Your task to perform on an android device: Go to battery settings Image 0: 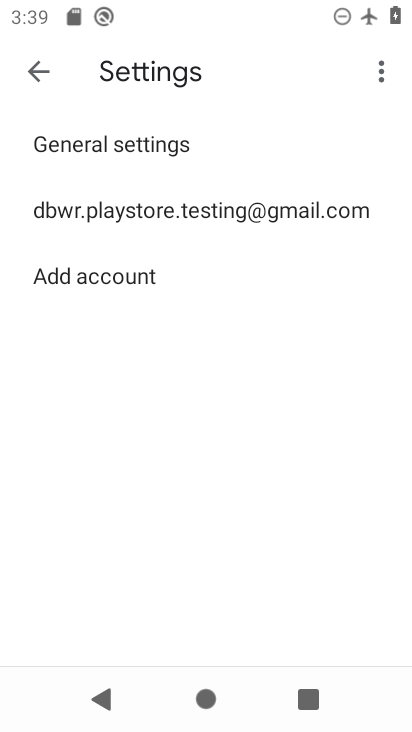
Step 0: press back button
Your task to perform on an android device: Go to battery settings Image 1: 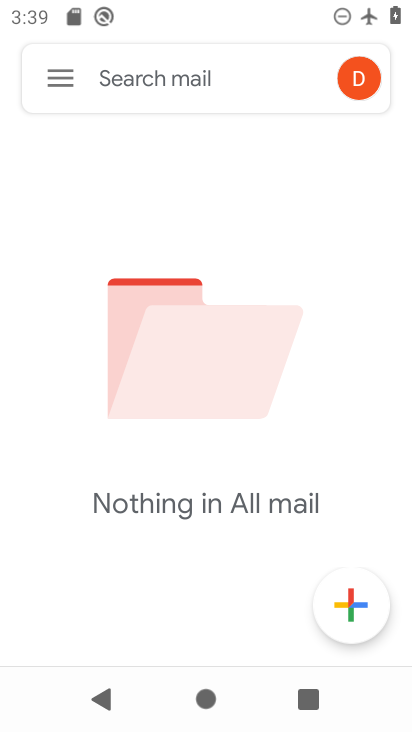
Step 1: drag from (225, 616) to (236, 493)
Your task to perform on an android device: Go to battery settings Image 2: 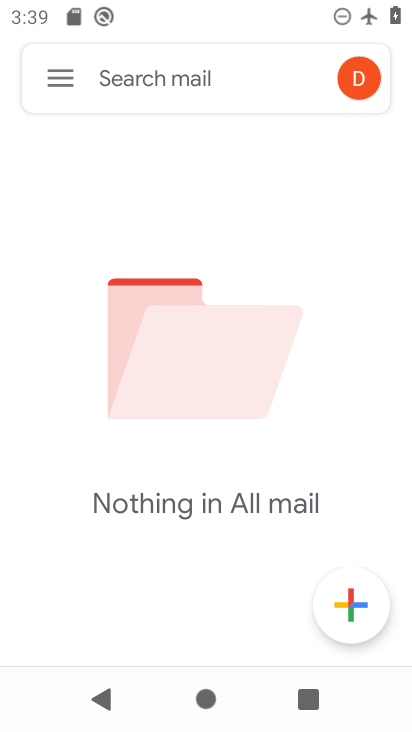
Step 2: press home button
Your task to perform on an android device: Go to battery settings Image 3: 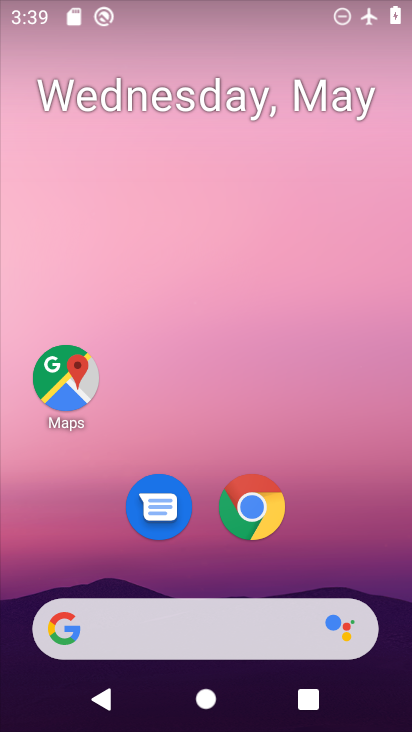
Step 3: drag from (197, 622) to (321, 48)
Your task to perform on an android device: Go to battery settings Image 4: 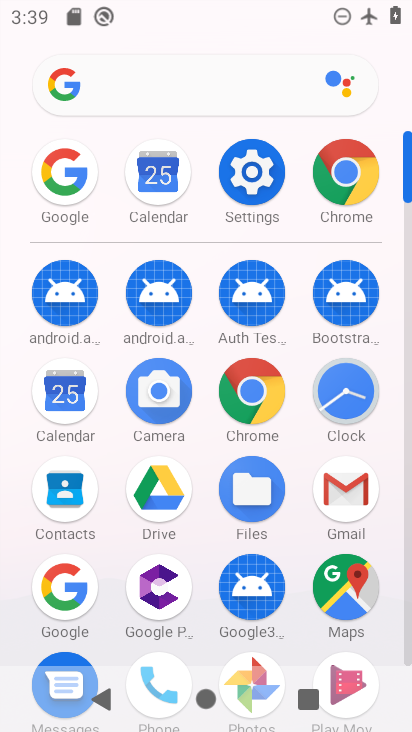
Step 4: click (271, 199)
Your task to perform on an android device: Go to battery settings Image 5: 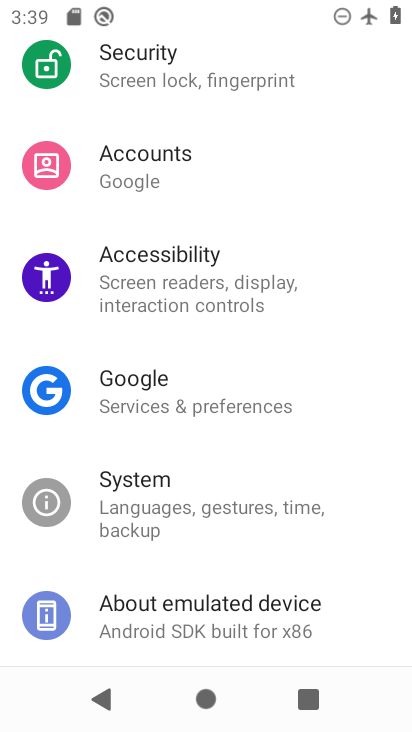
Step 5: drag from (213, 370) to (213, 663)
Your task to perform on an android device: Go to battery settings Image 6: 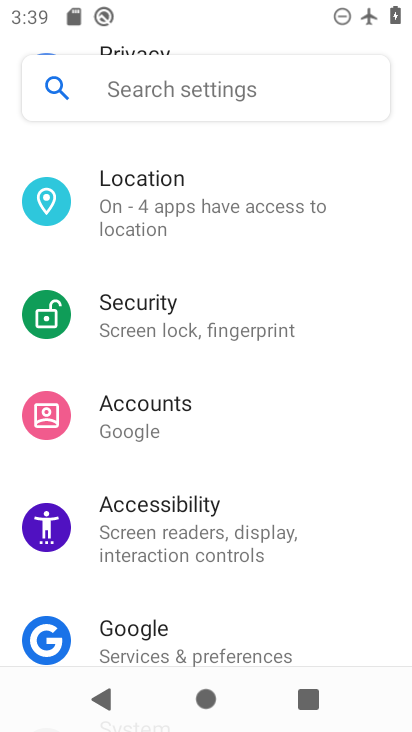
Step 6: drag from (209, 347) to (212, 684)
Your task to perform on an android device: Go to battery settings Image 7: 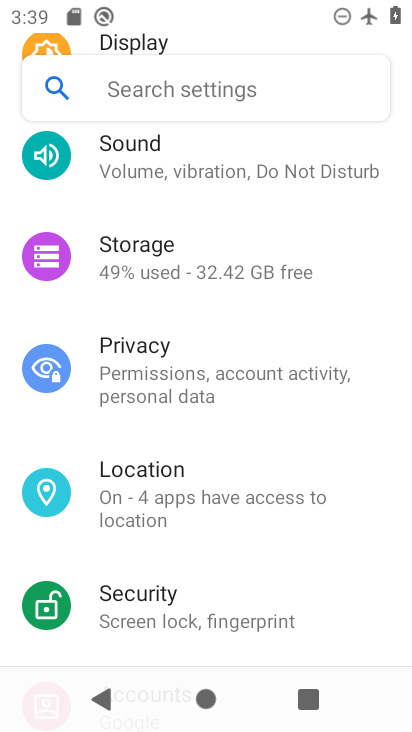
Step 7: drag from (210, 302) to (205, 722)
Your task to perform on an android device: Go to battery settings Image 8: 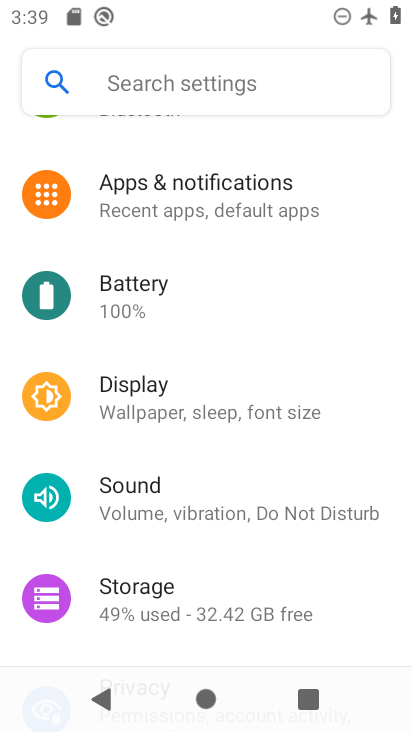
Step 8: click (203, 310)
Your task to perform on an android device: Go to battery settings Image 9: 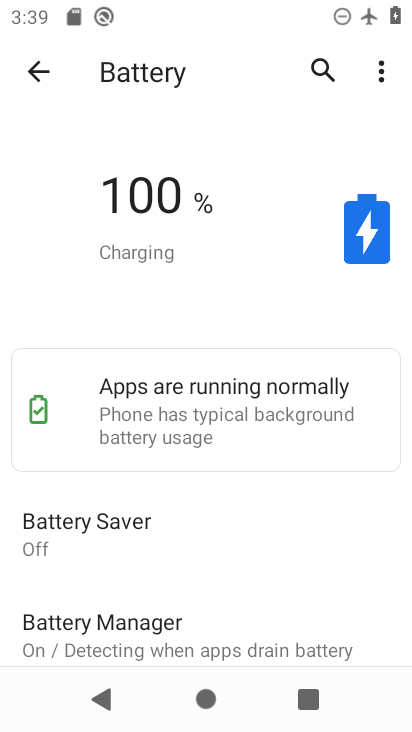
Step 9: task complete